Your task to perform on an android device: turn notification dots on Image 0: 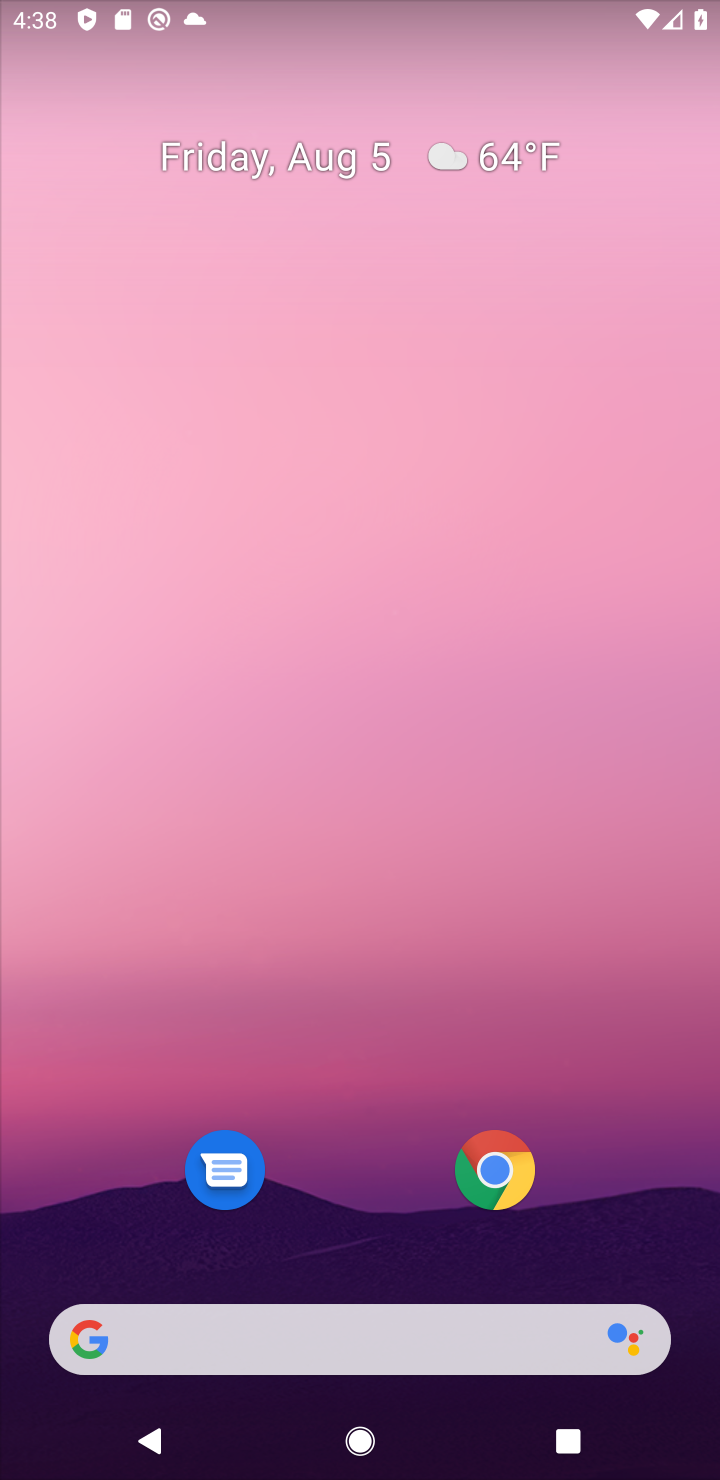
Step 0: drag from (353, 791) to (334, 302)
Your task to perform on an android device: turn notification dots on Image 1: 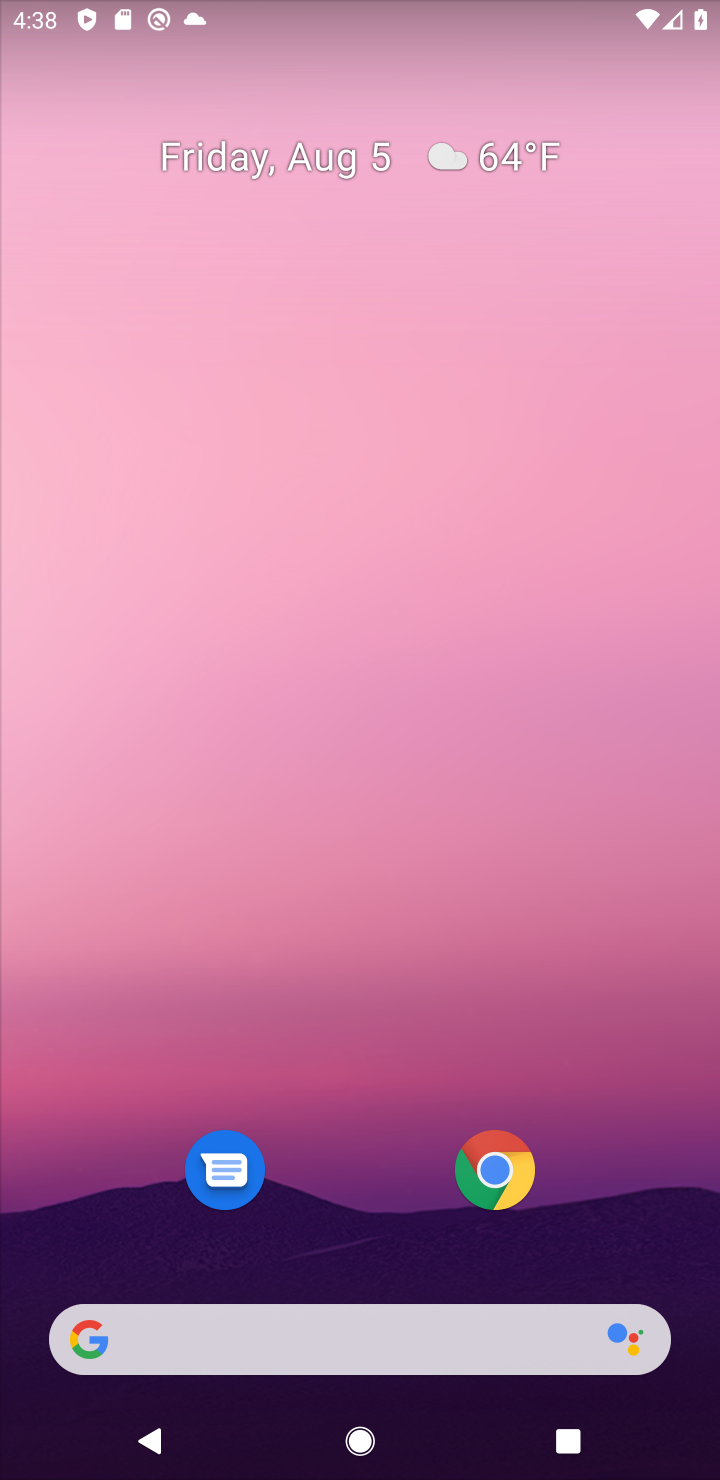
Step 1: drag from (363, 635) to (419, 33)
Your task to perform on an android device: turn notification dots on Image 2: 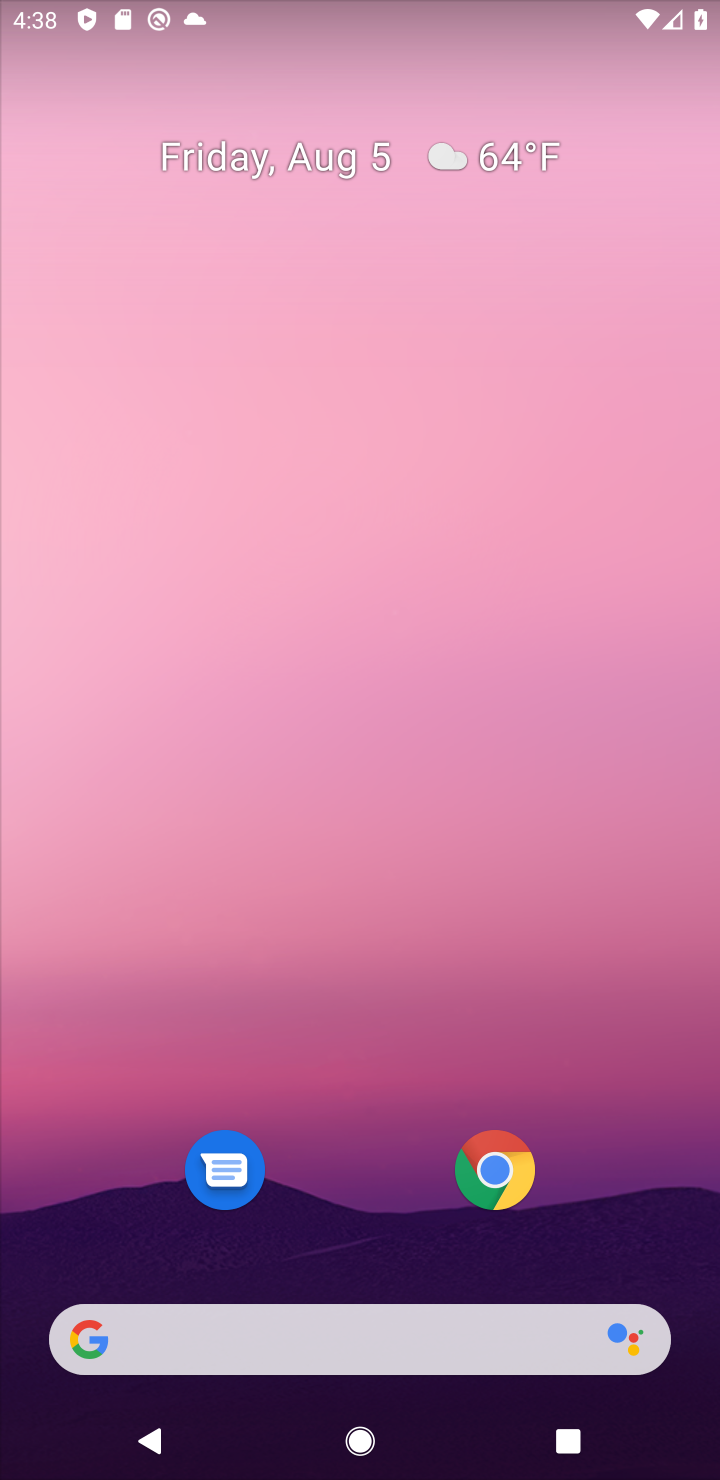
Step 2: drag from (369, 1229) to (391, 124)
Your task to perform on an android device: turn notification dots on Image 3: 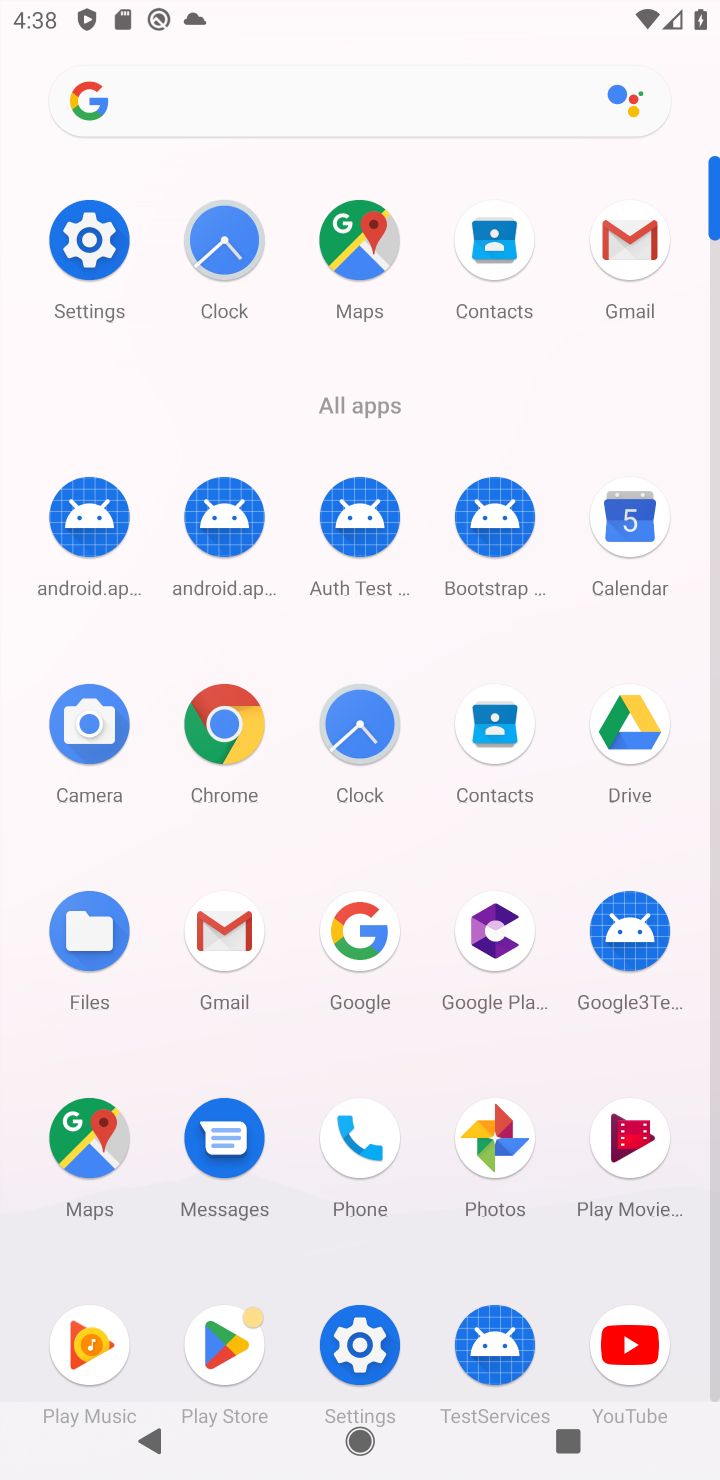
Step 3: click (68, 251)
Your task to perform on an android device: turn notification dots on Image 4: 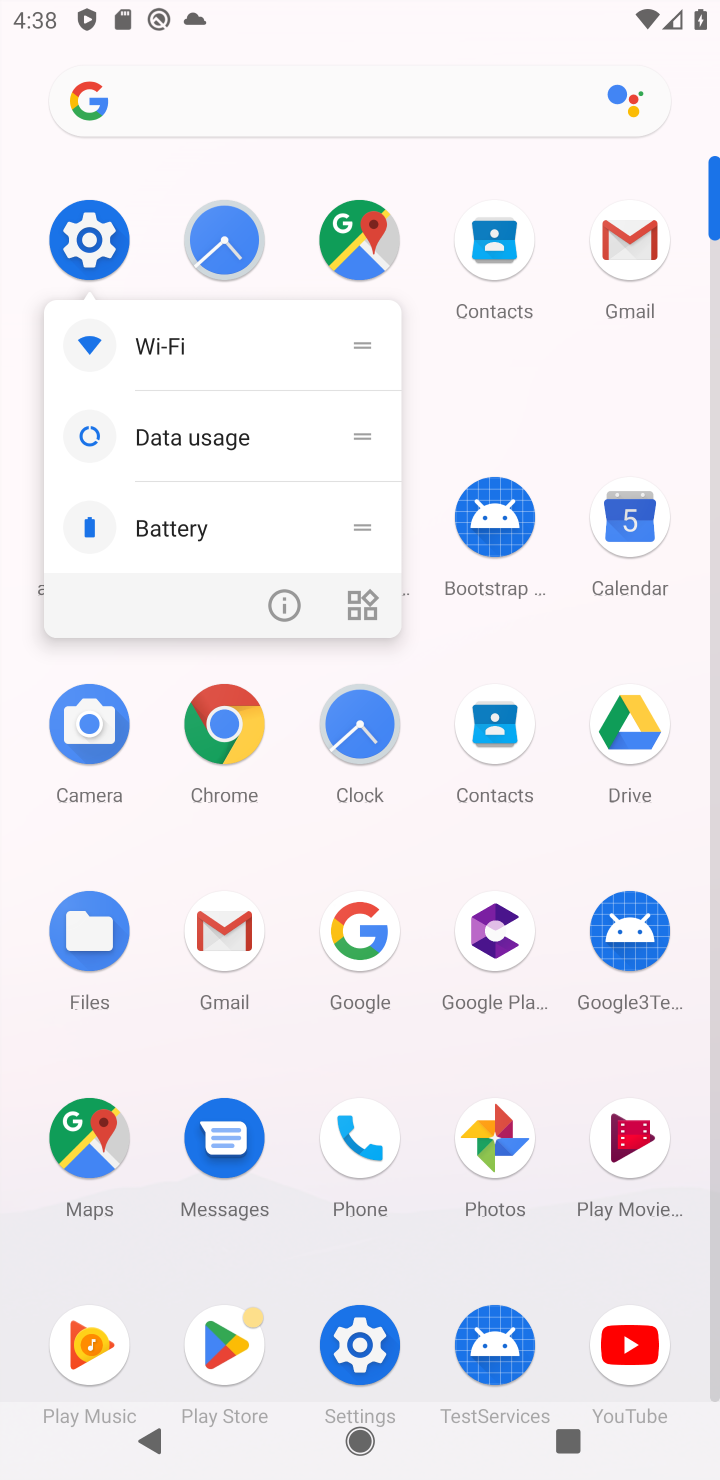
Step 4: click (81, 247)
Your task to perform on an android device: turn notification dots on Image 5: 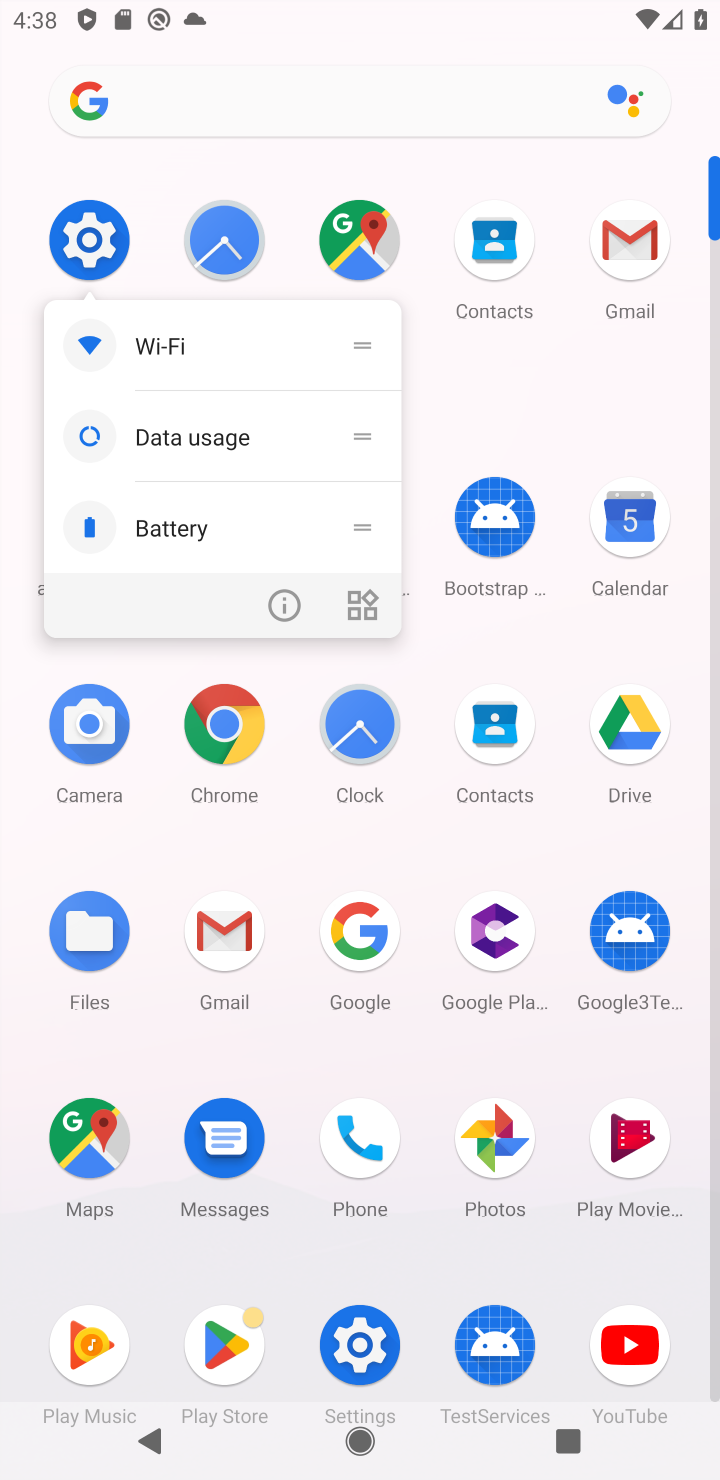
Step 5: click (100, 239)
Your task to perform on an android device: turn notification dots on Image 6: 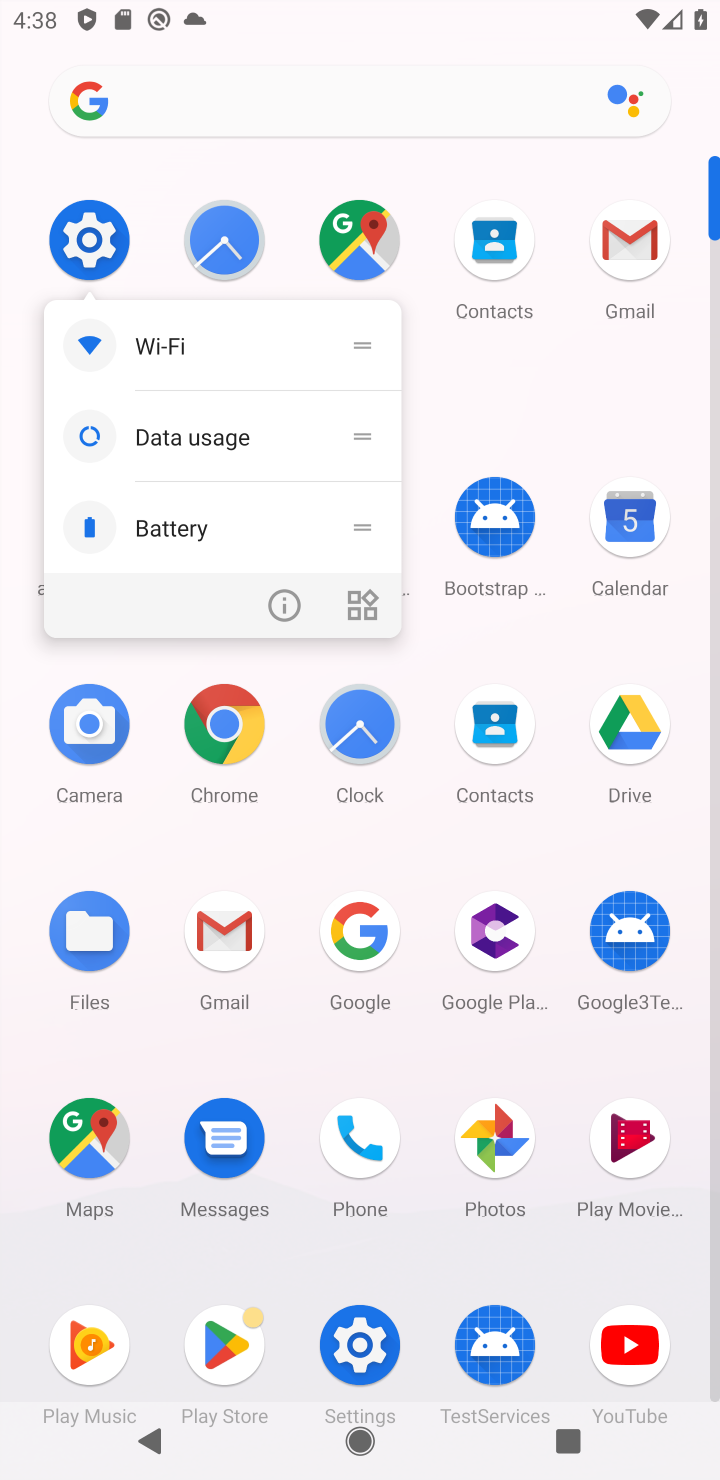
Step 6: click (100, 239)
Your task to perform on an android device: turn notification dots on Image 7: 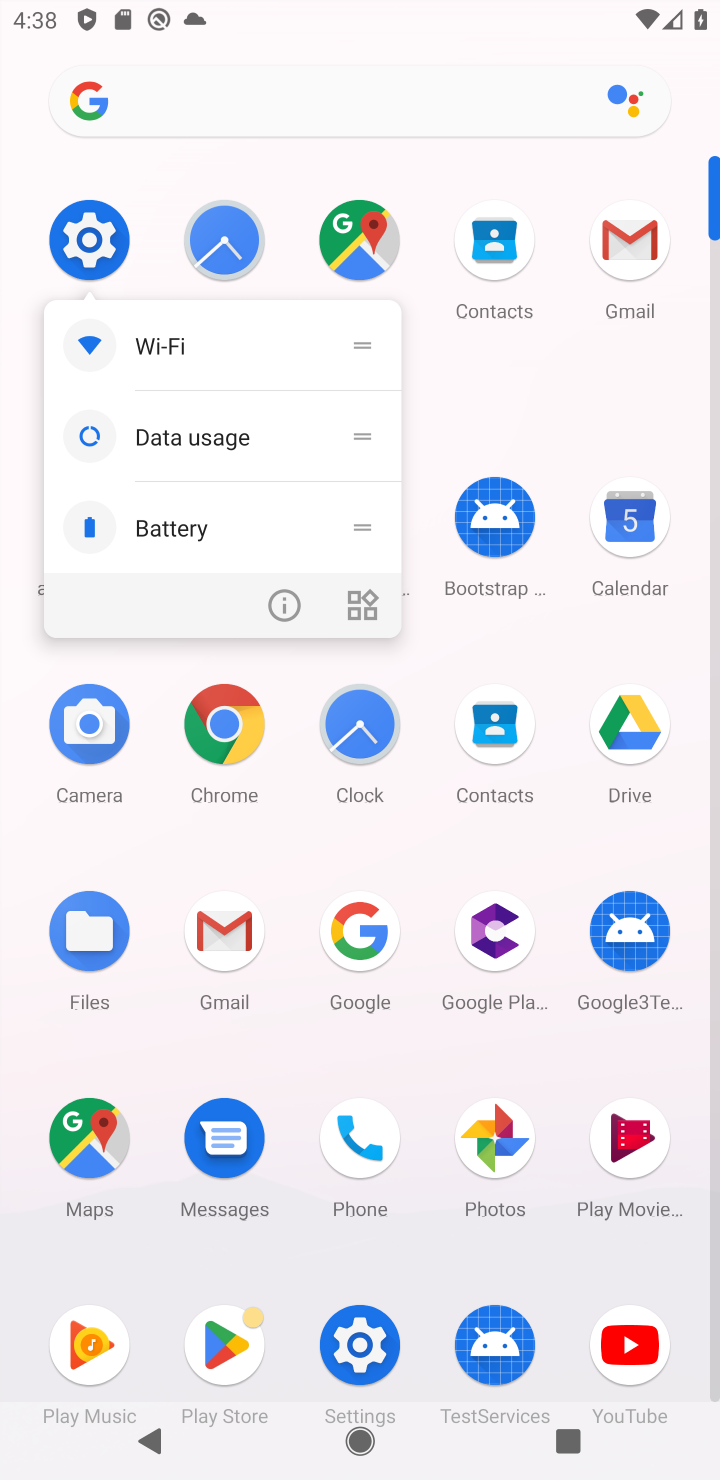
Step 7: click (100, 243)
Your task to perform on an android device: turn notification dots on Image 8: 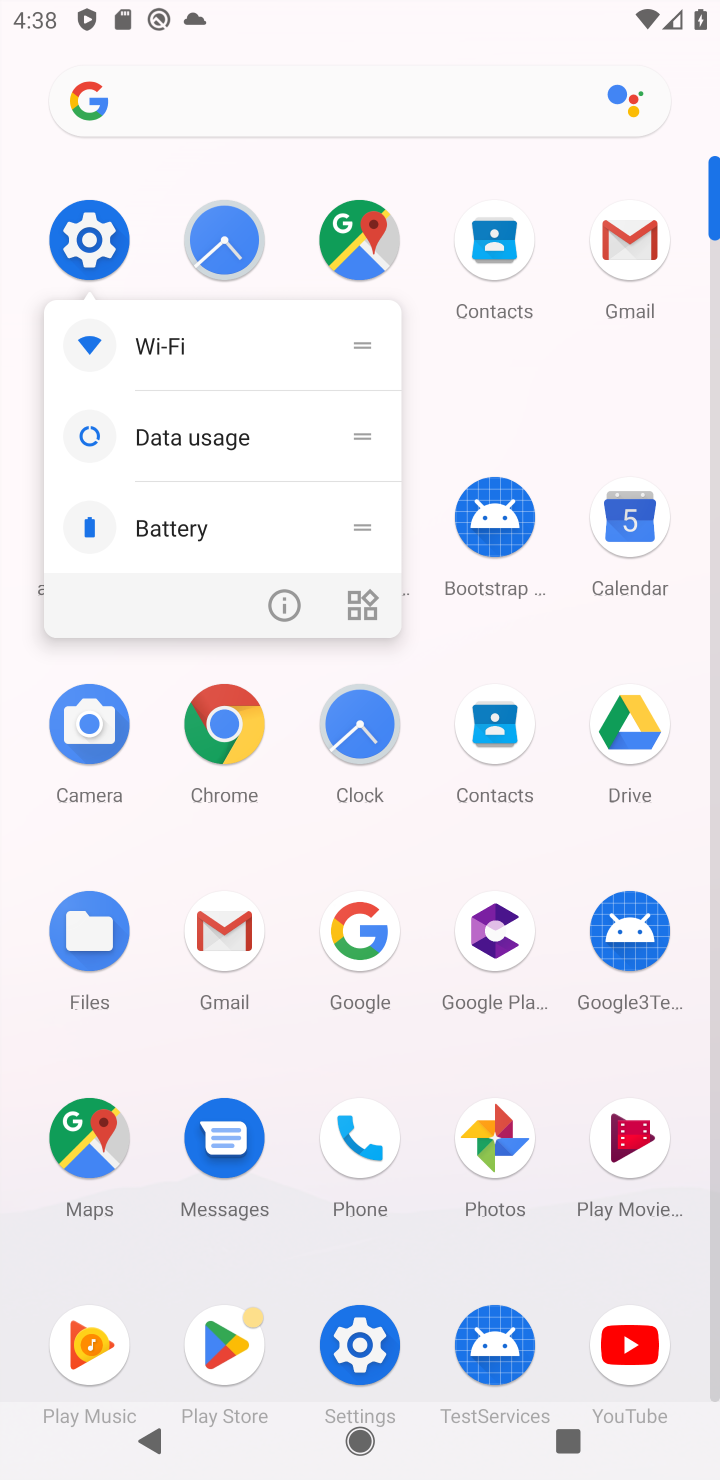
Step 8: click (100, 243)
Your task to perform on an android device: turn notification dots on Image 9: 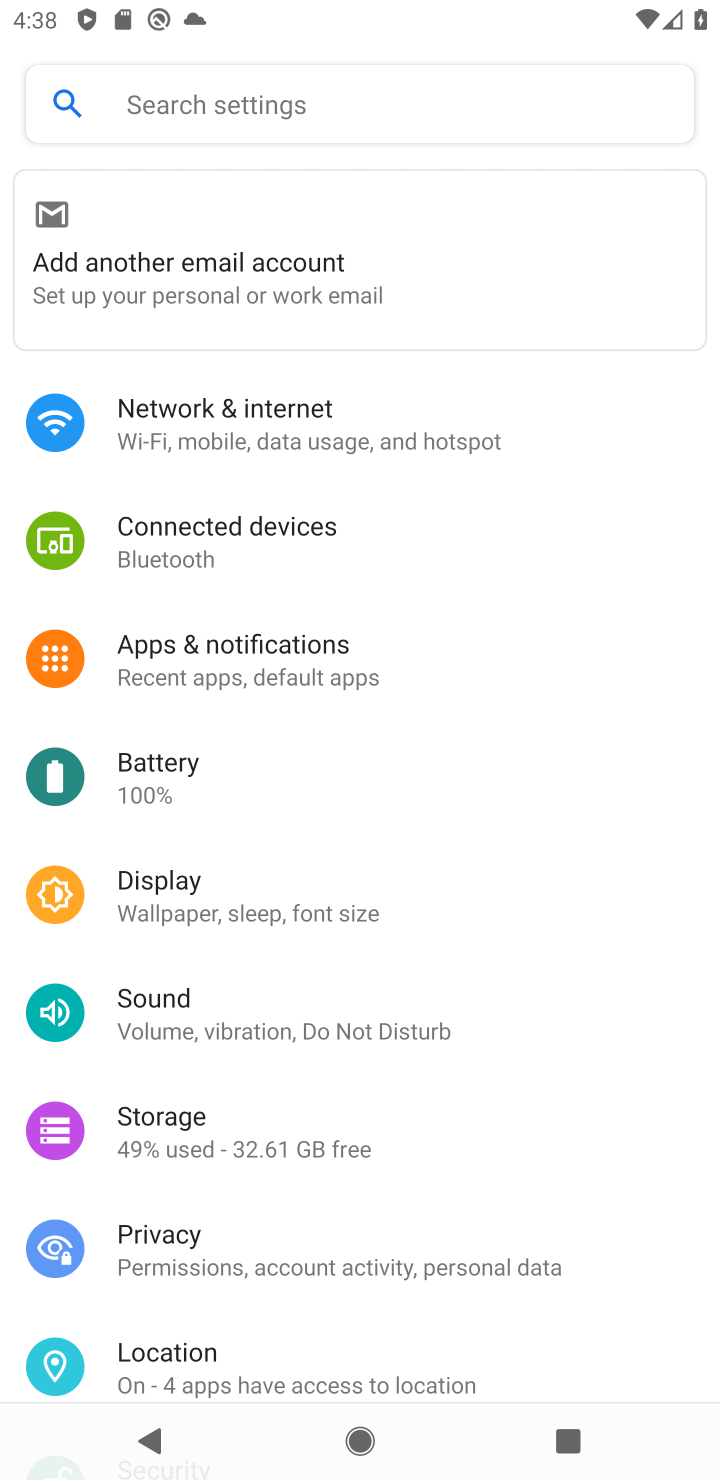
Step 9: drag from (549, 1277) to (630, 24)
Your task to perform on an android device: turn notification dots on Image 10: 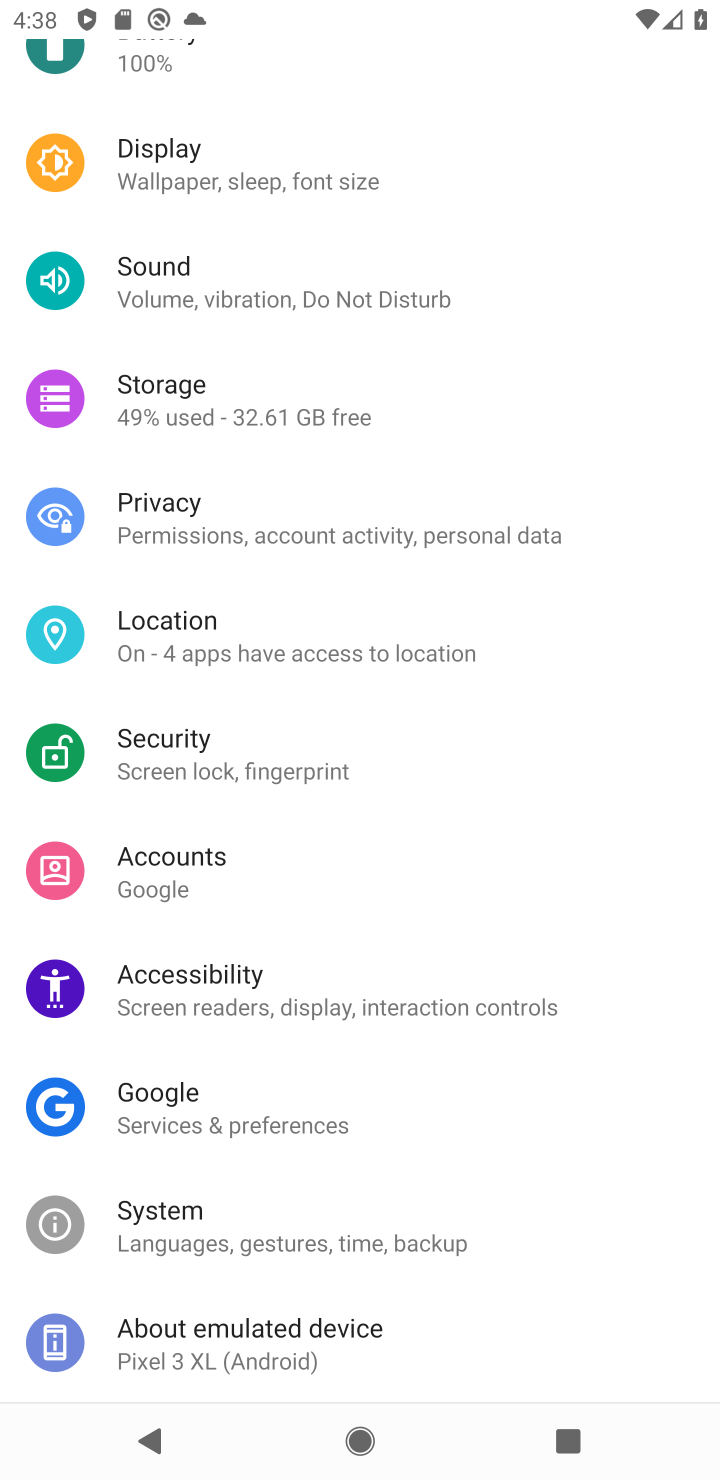
Step 10: drag from (421, 960) to (470, 226)
Your task to perform on an android device: turn notification dots on Image 11: 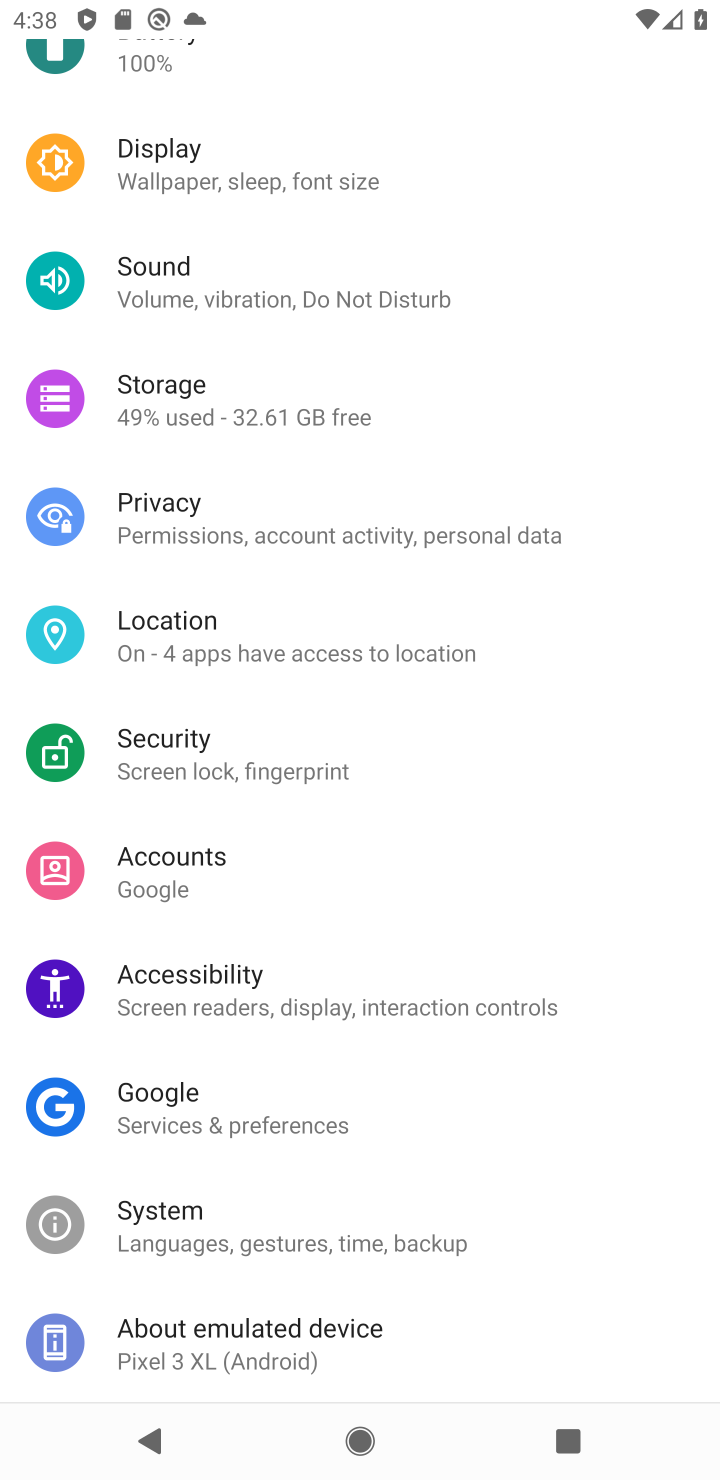
Step 11: drag from (503, 197) to (552, 1466)
Your task to perform on an android device: turn notification dots on Image 12: 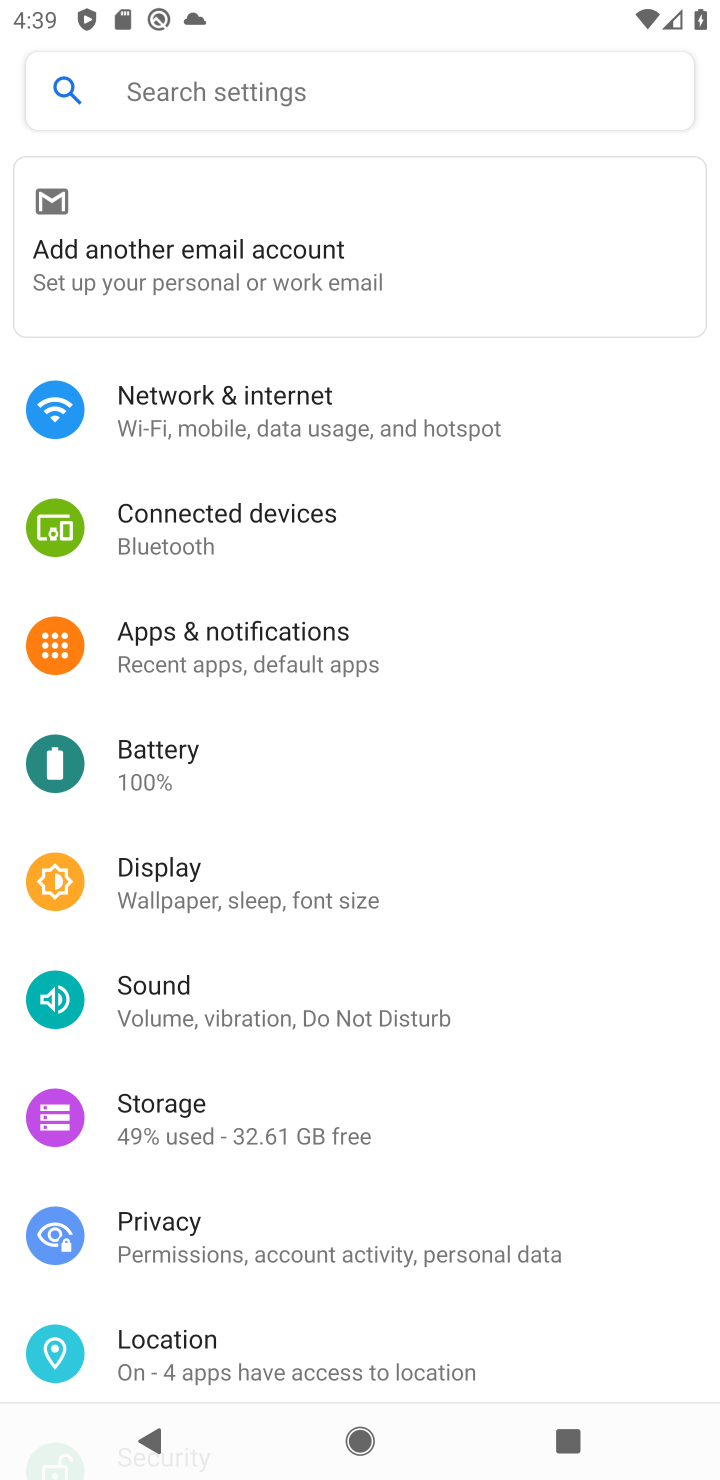
Step 12: click (228, 649)
Your task to perform on an android device: turn notification dots on Image 13: 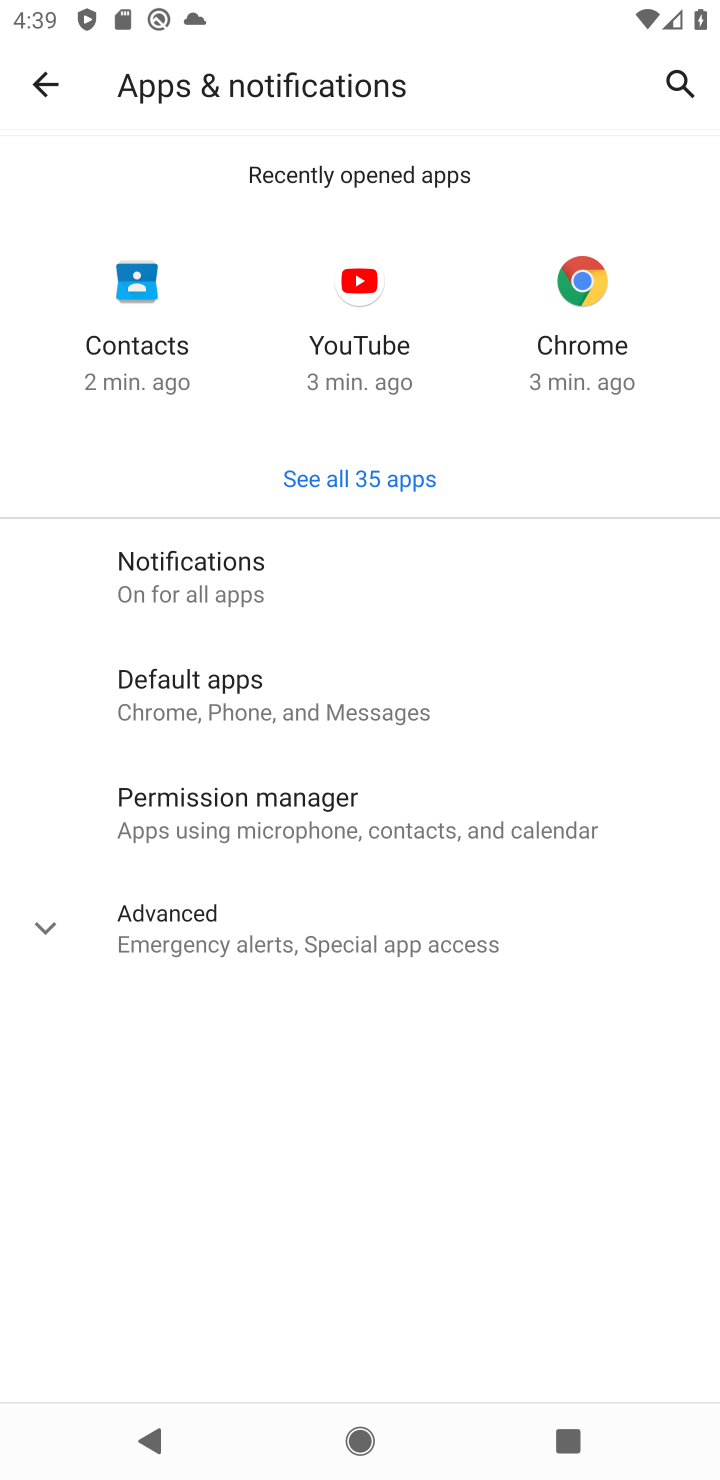
Step 13: click (170, 570)
Your task to perform on an android device: turn notification dots on Image 14: 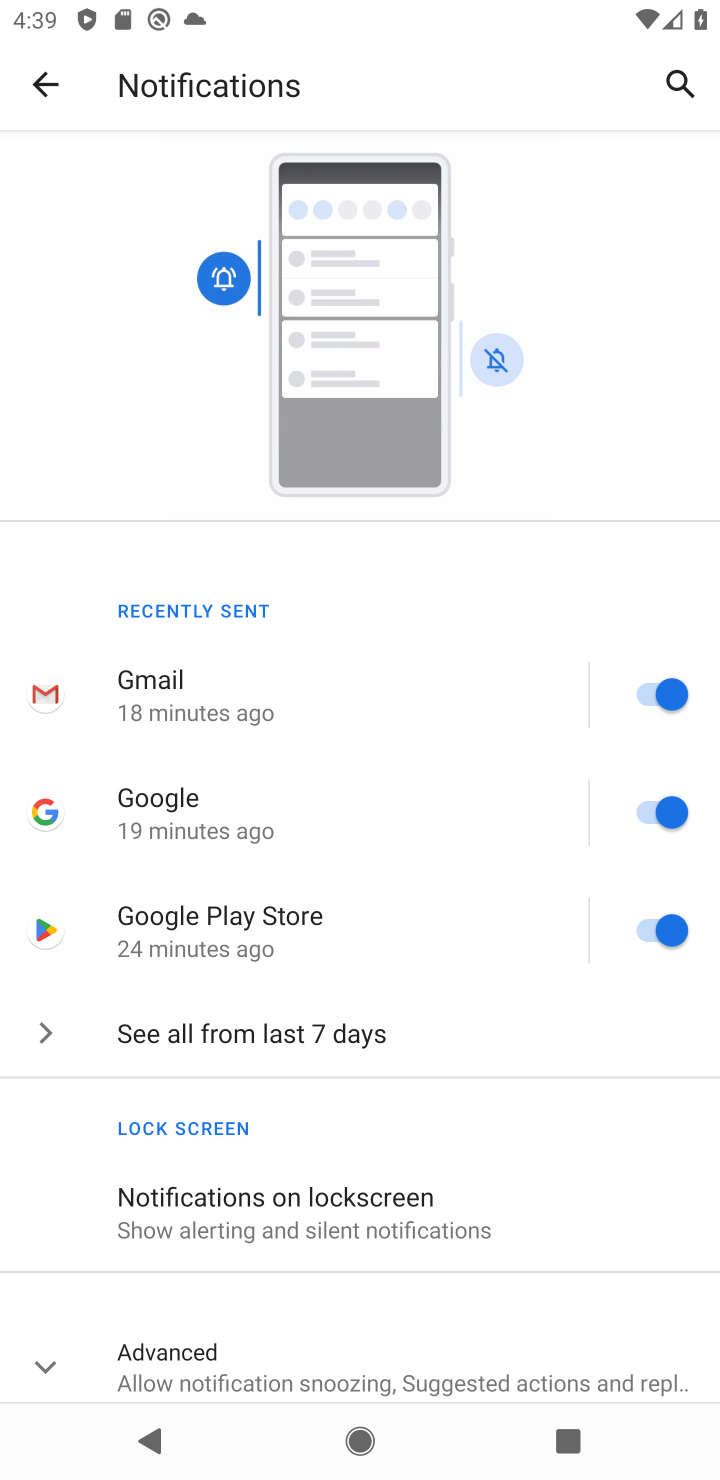
Step 14: click (165, 1371)
Your task to perform on an android device: turn notification dots on Image 15: 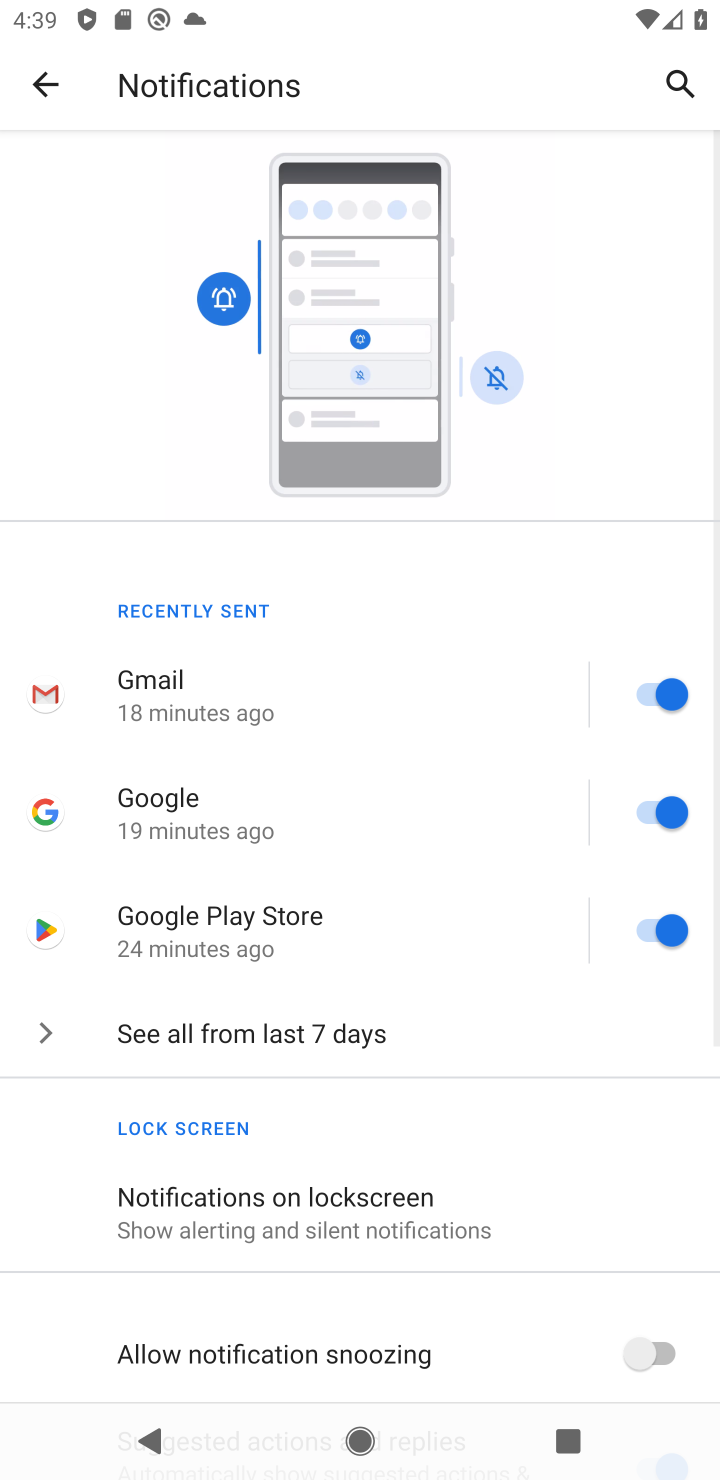
Step 15: task complete